Your task to perform on an android device: Show the shopping cart on newegg.com. Add "razer nari" to the cart on newegg.com Image 0: 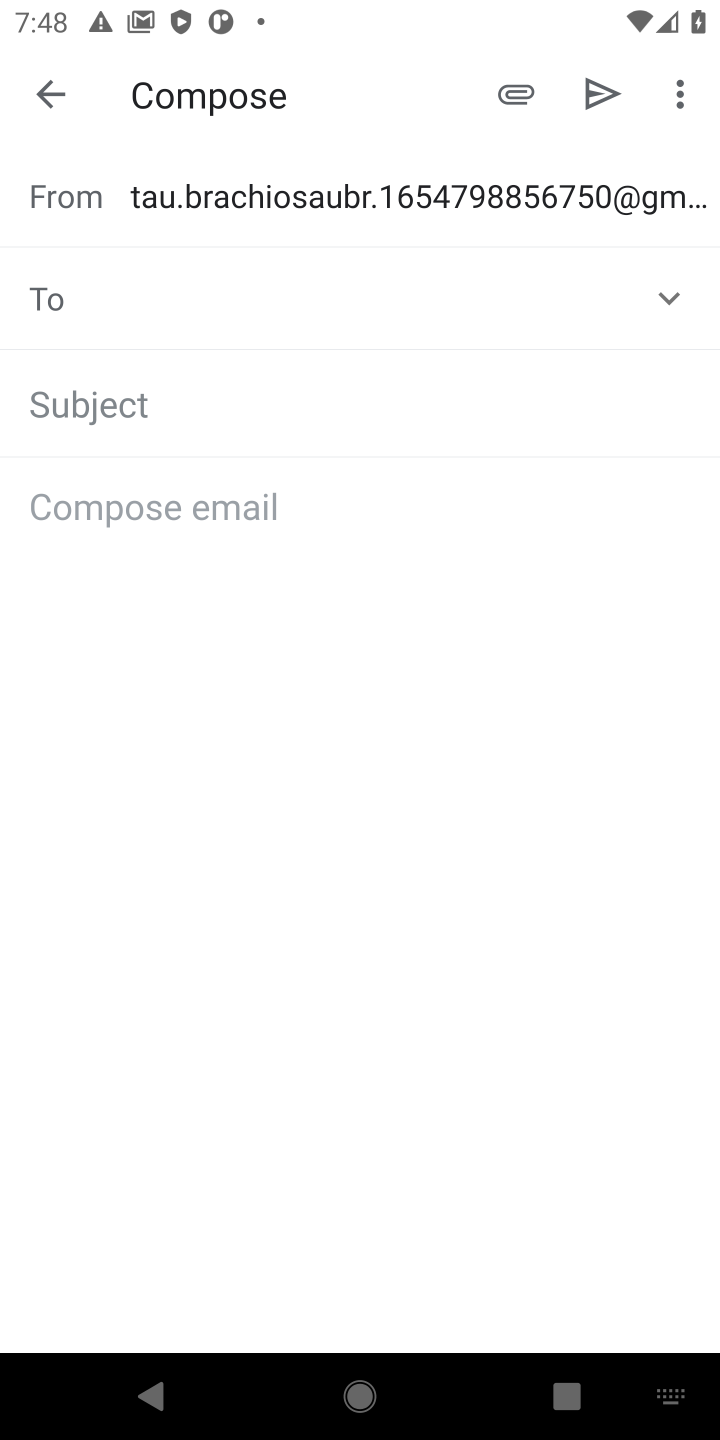
Step 0: press home button
Your task to perform on an android device: Show the shopping cart on newegg.com. Add "razer nari" to the cart on newegg.com Image 1: 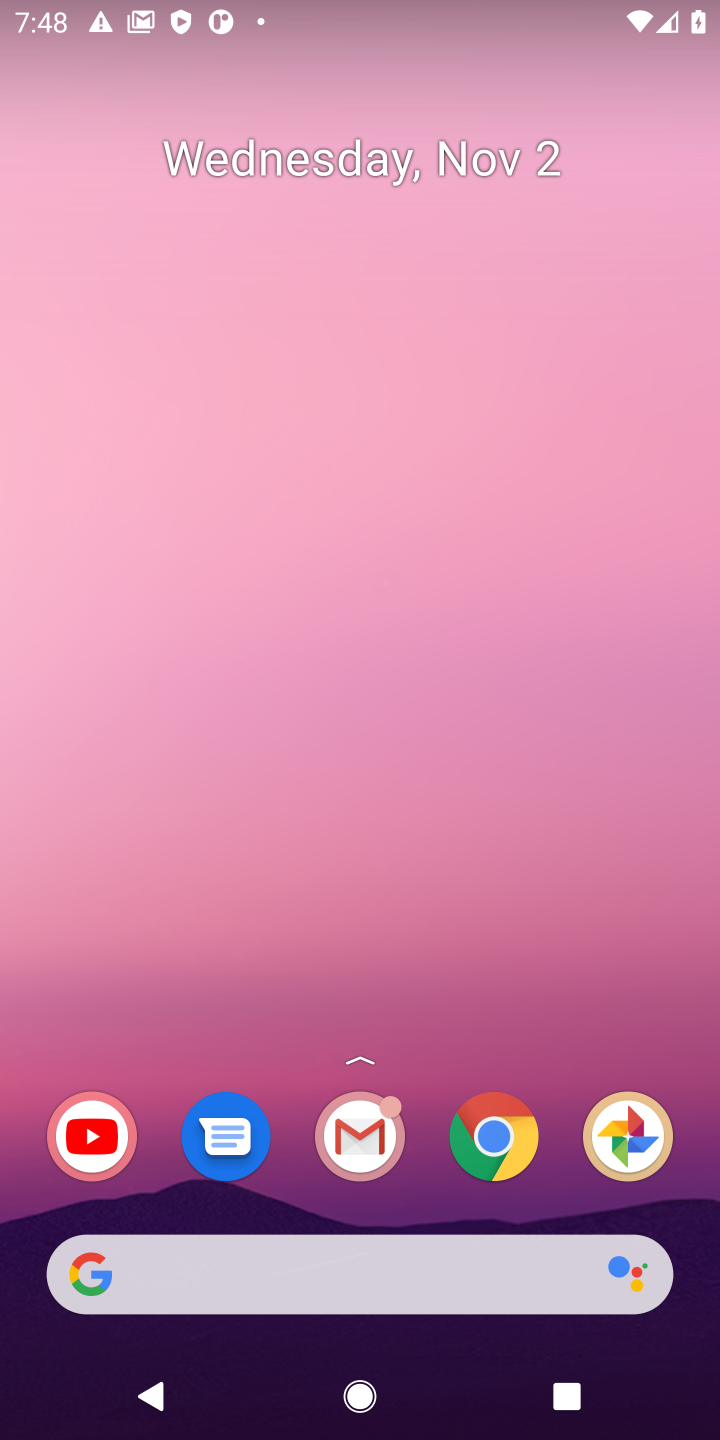
Step 1: drag from (390, 1139) to (335, 624)
Your task to perform on an android device: Show the shopping cart on newegg.com. Add "razer nari" to the cart on newegg.com Image 2: 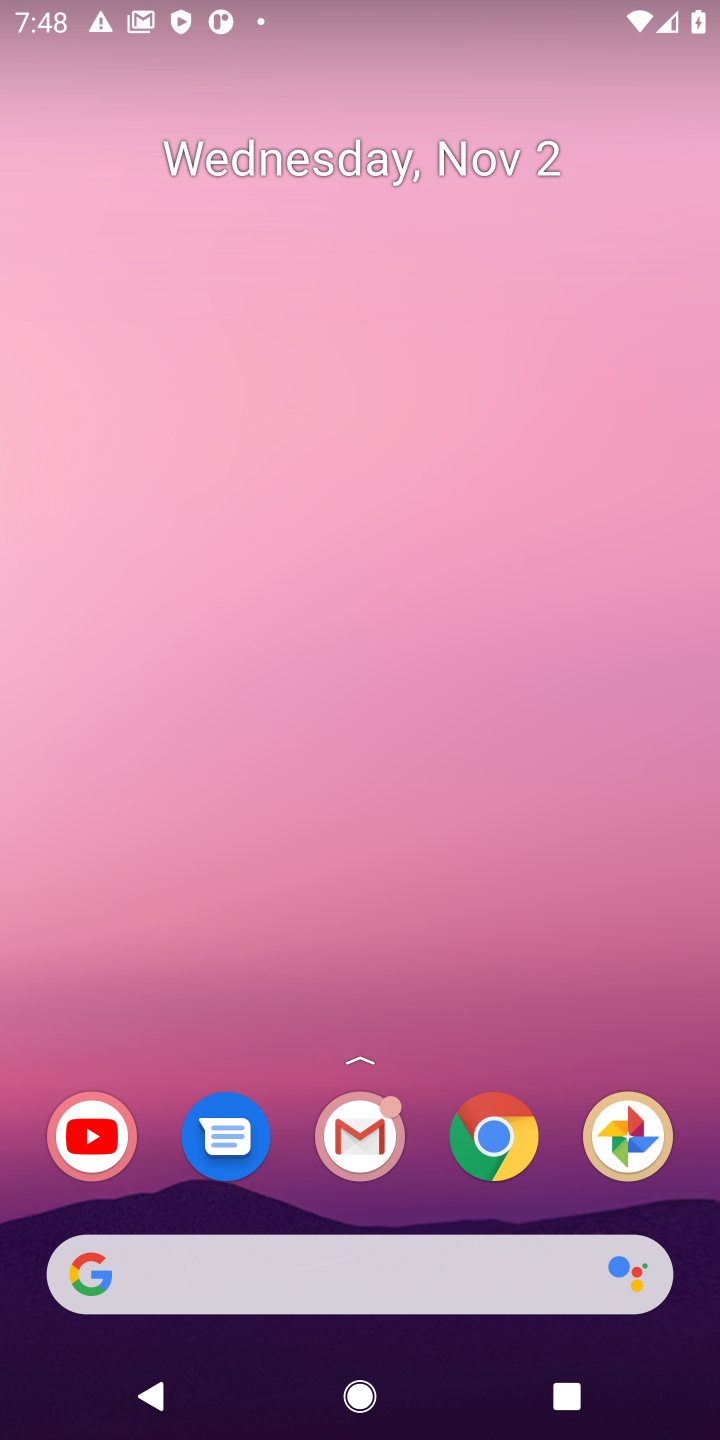
Step 2: drag from (296, 1196) to (298, 226)
Your task to perform on an android device: Show the shopping cart on newegg.com. Add "razer nari" to the cart on newegg.com Image 3: 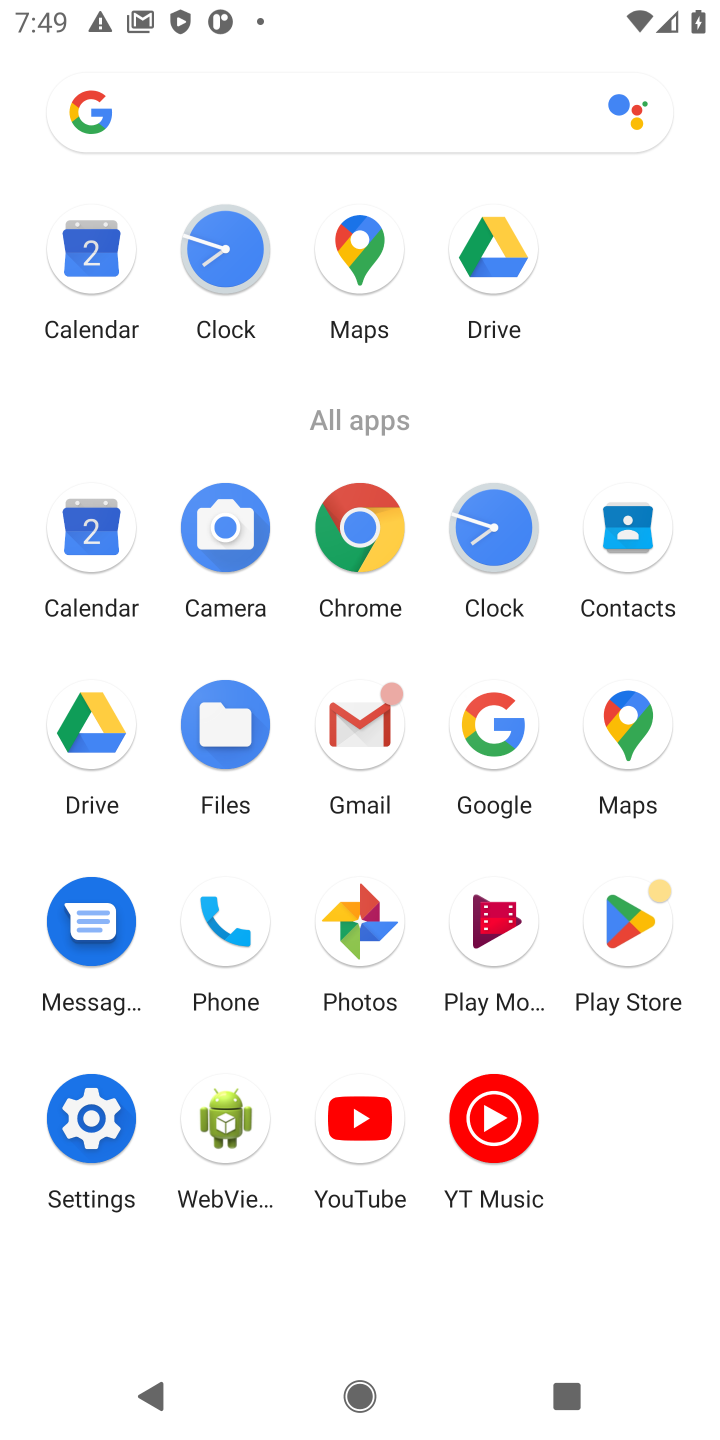
Step 3: click (476, 717)
Your task to perform on an android device: Show the shopping cart on newegg.com. Add "razer nari" to the cart on newegg.com Image 4: 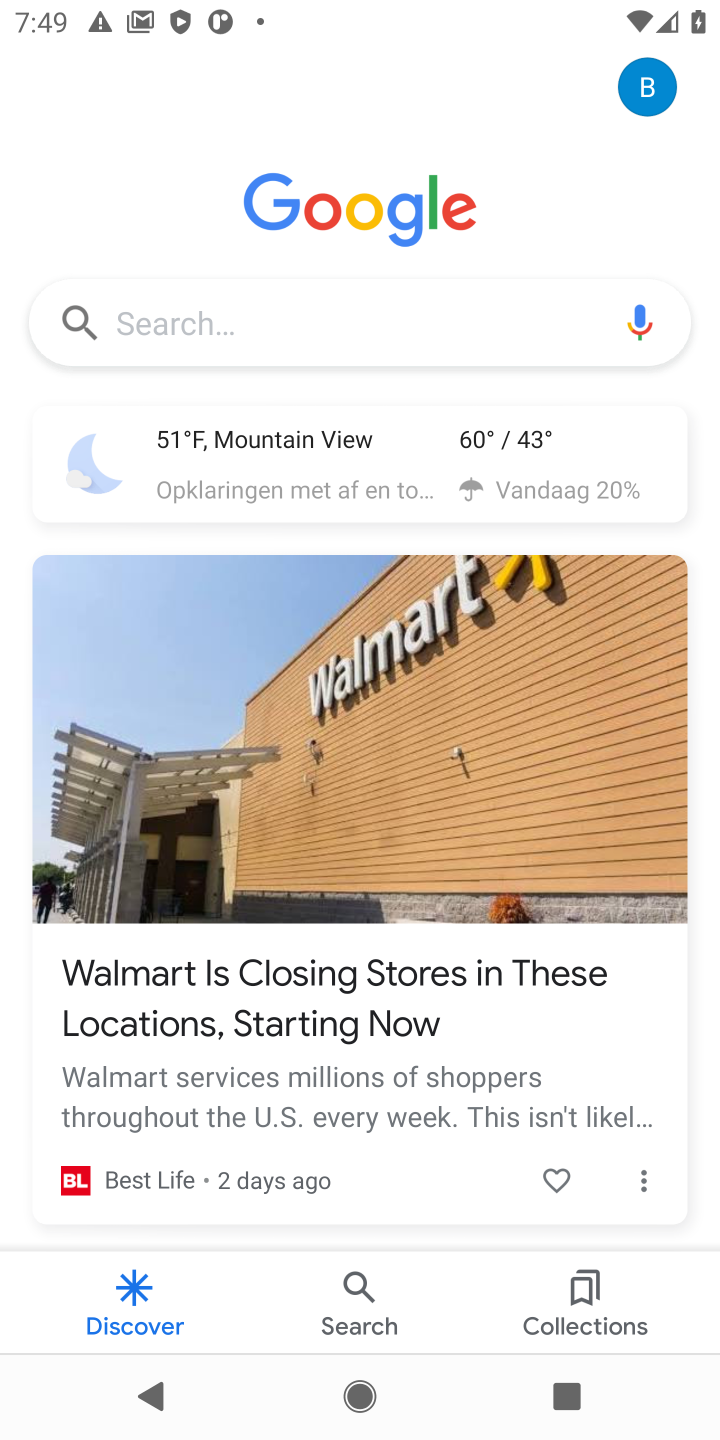
Step 4: click (231, 317)
Your task to perform on an android device: Show the shopping cart on newegg.com. Add "razer nari" to the cart on newegg.com Image 5: 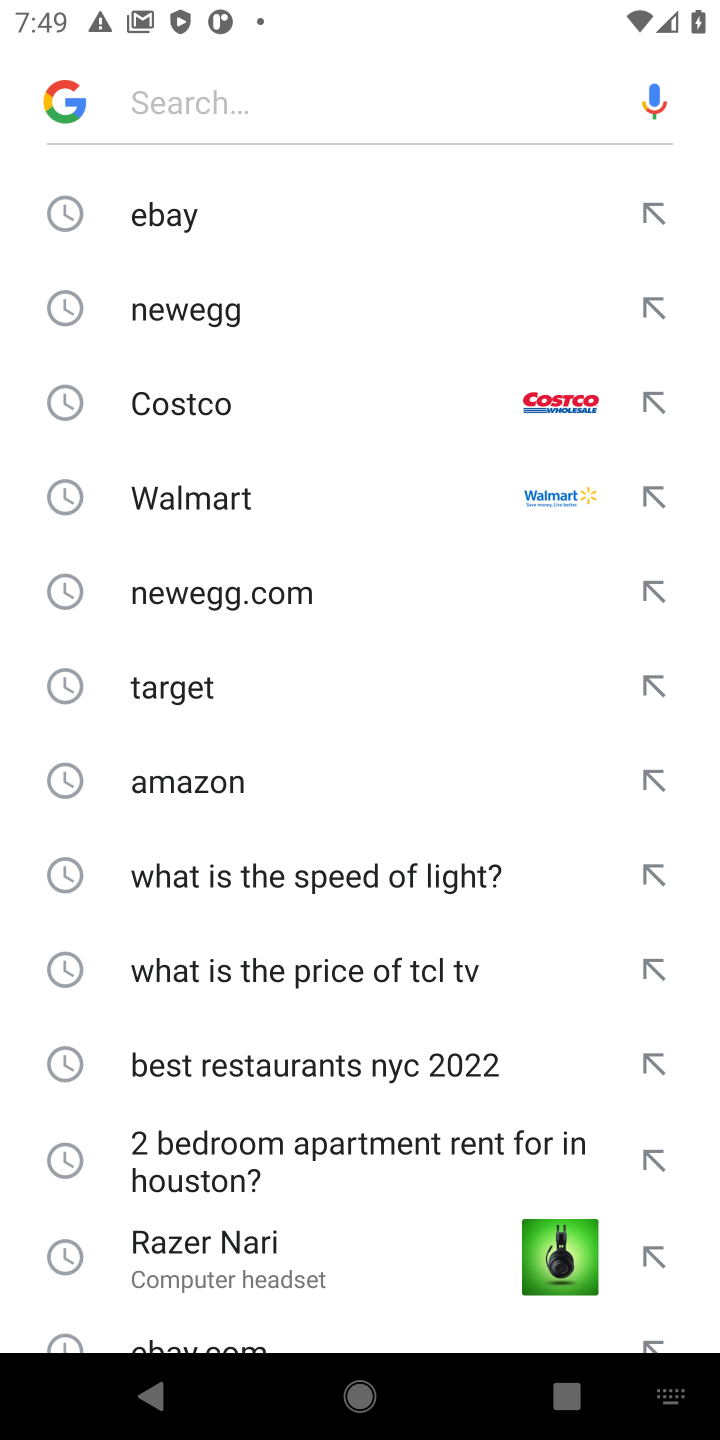
Step 5: click (215, 328)
Your task to perform on an android device: Show the shopping cart on newegg.com. Add "razer nari" to the cart on newegg.com Image 6: 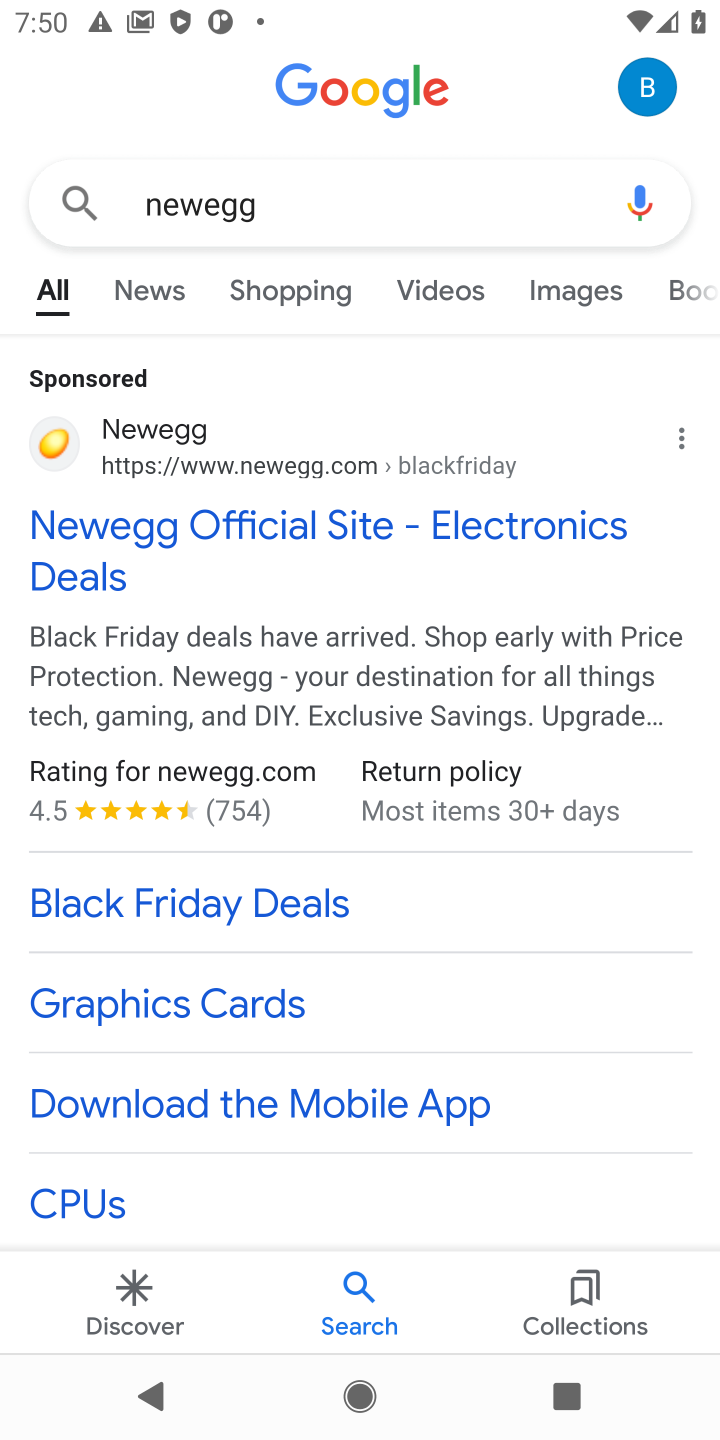
Step 6: click (84, 524)
Your task to perform on an android device: Show the shopping cart on newegg.com. Add "razer nari" to the cart on newegg.com Image 7: 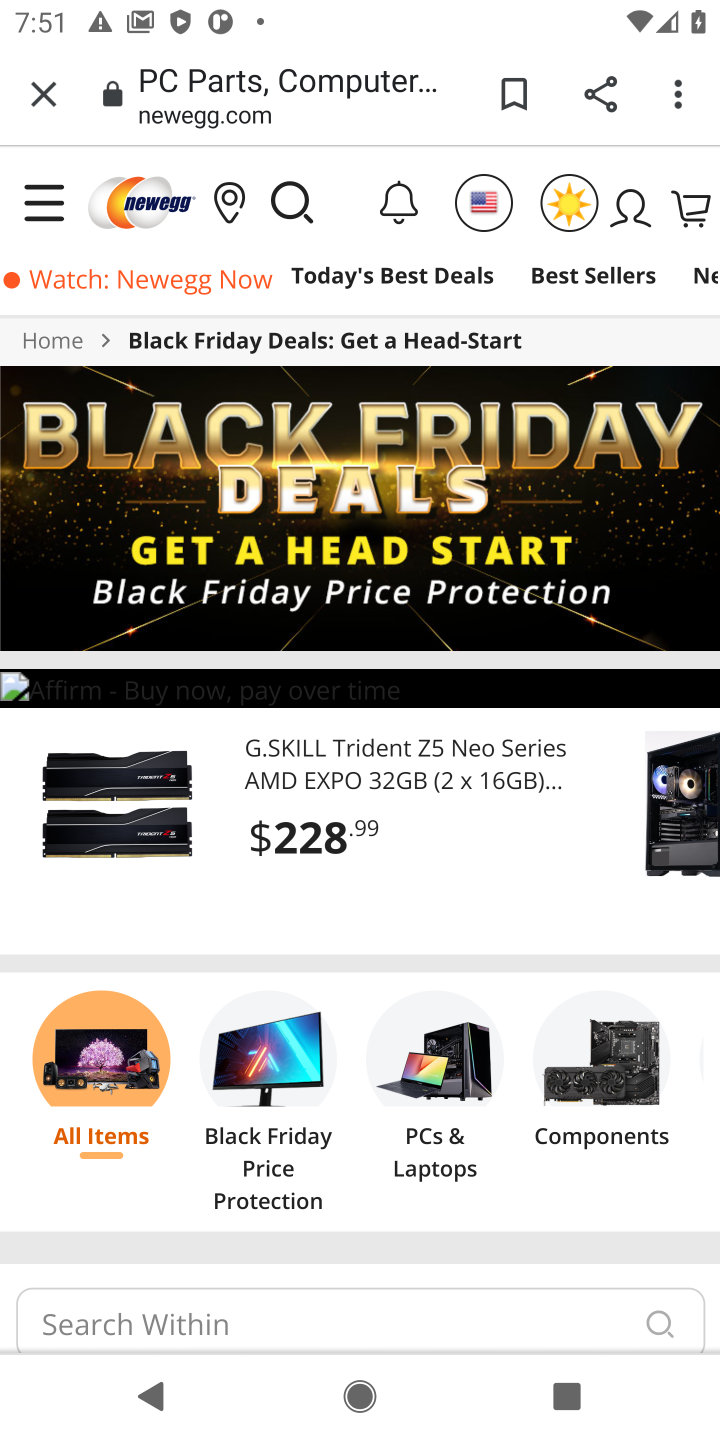
Step 7: click (288, 204)
Your task to perform on an android device: Show the shopping cart on newegg.com. Add "razer nari" to the cart on newegg.com Image 8: 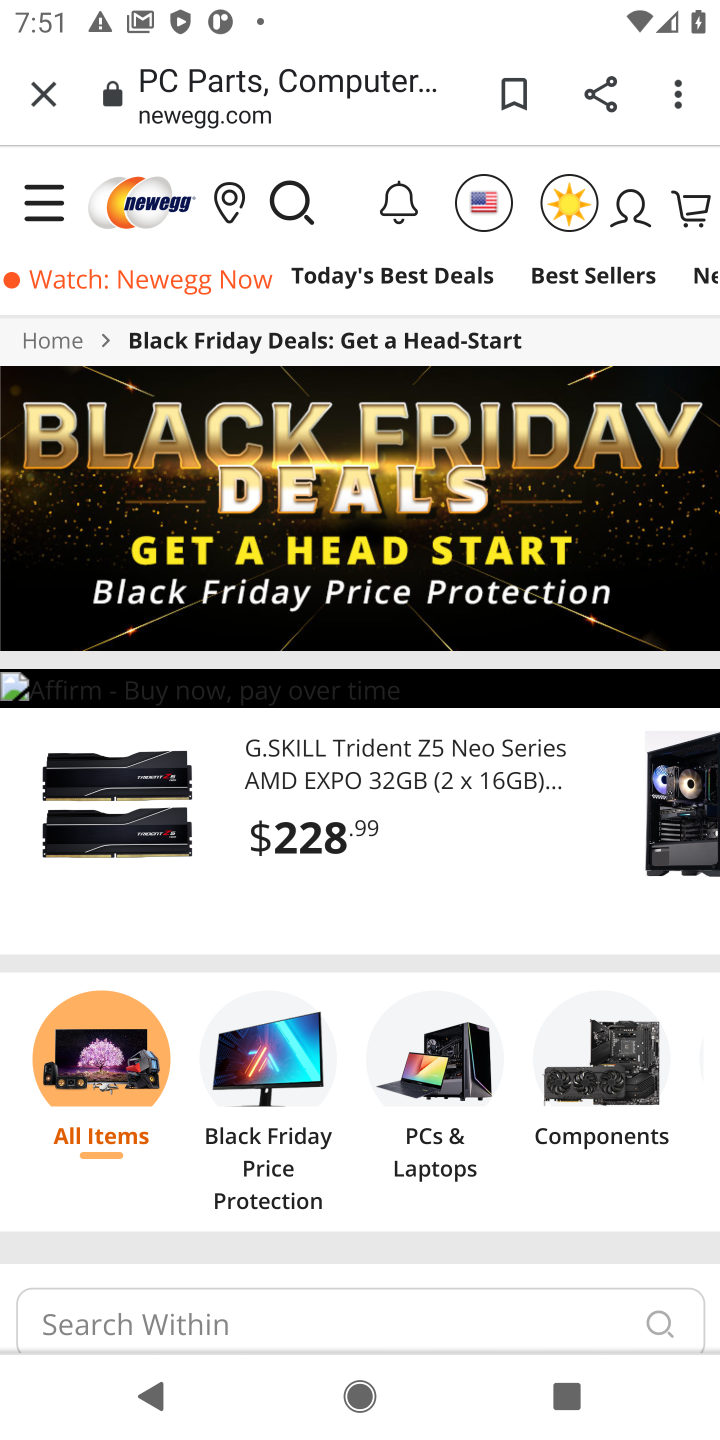
Step 8: click (292, 201)
Your task to perform on an android device: Show the shopping cart on newegg.com. Add "razer nari" to the cart on newegg.com Image 9: 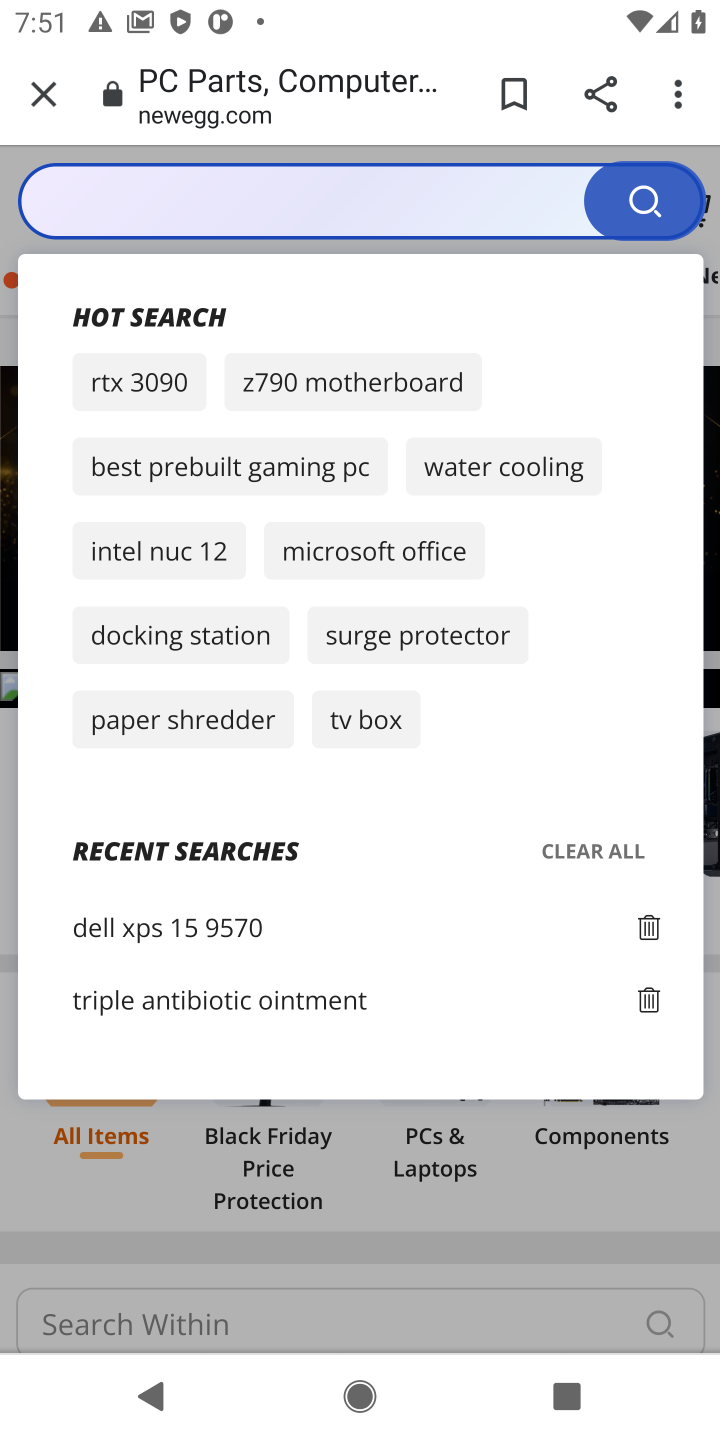
Step 9: type "razer nari "
Your task to perform on an android device: Show the shopping cart on newegg.com. Add "razer nari" to the cart on newegg.com Image 10: 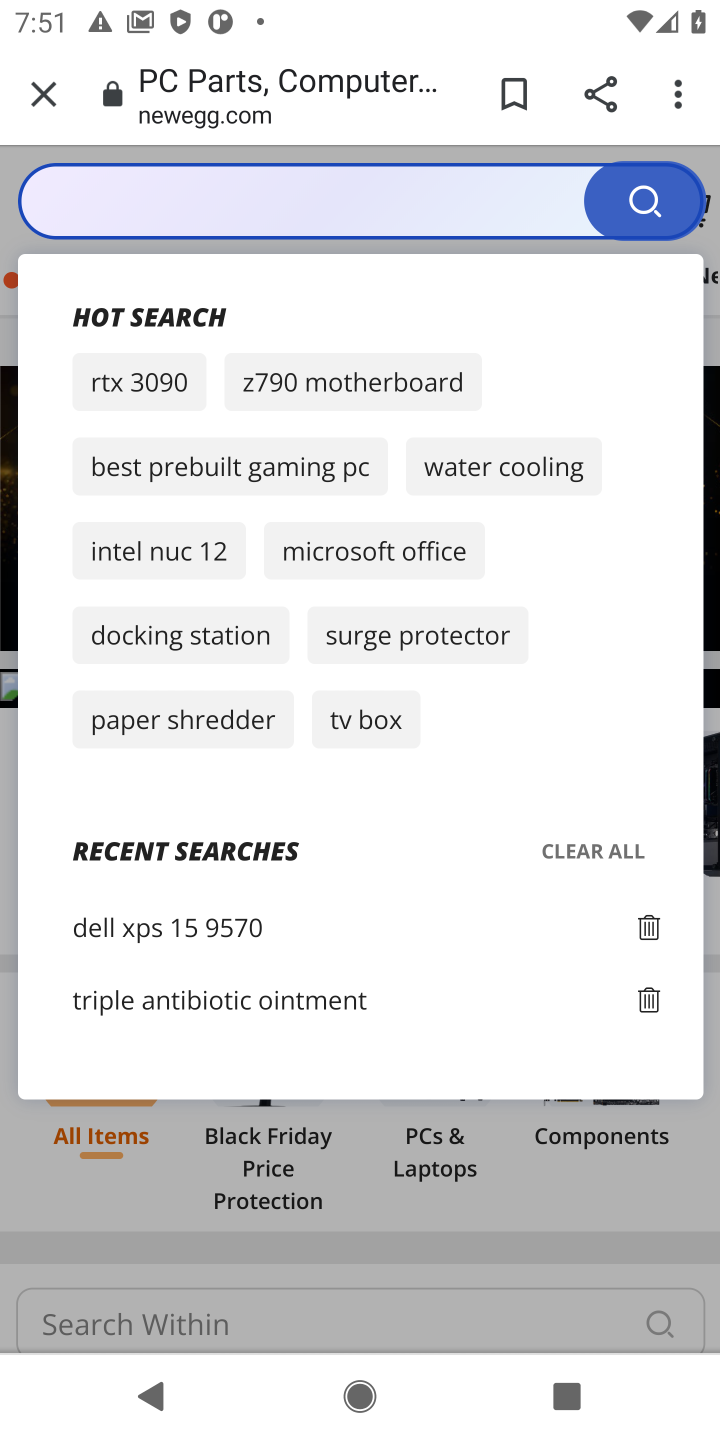
Step 10: click (406, 201)
Your task to perform on an android device: Show the shopping cart on newegg.com. Add "razer nari" to the cart on newegg.com Image 11: 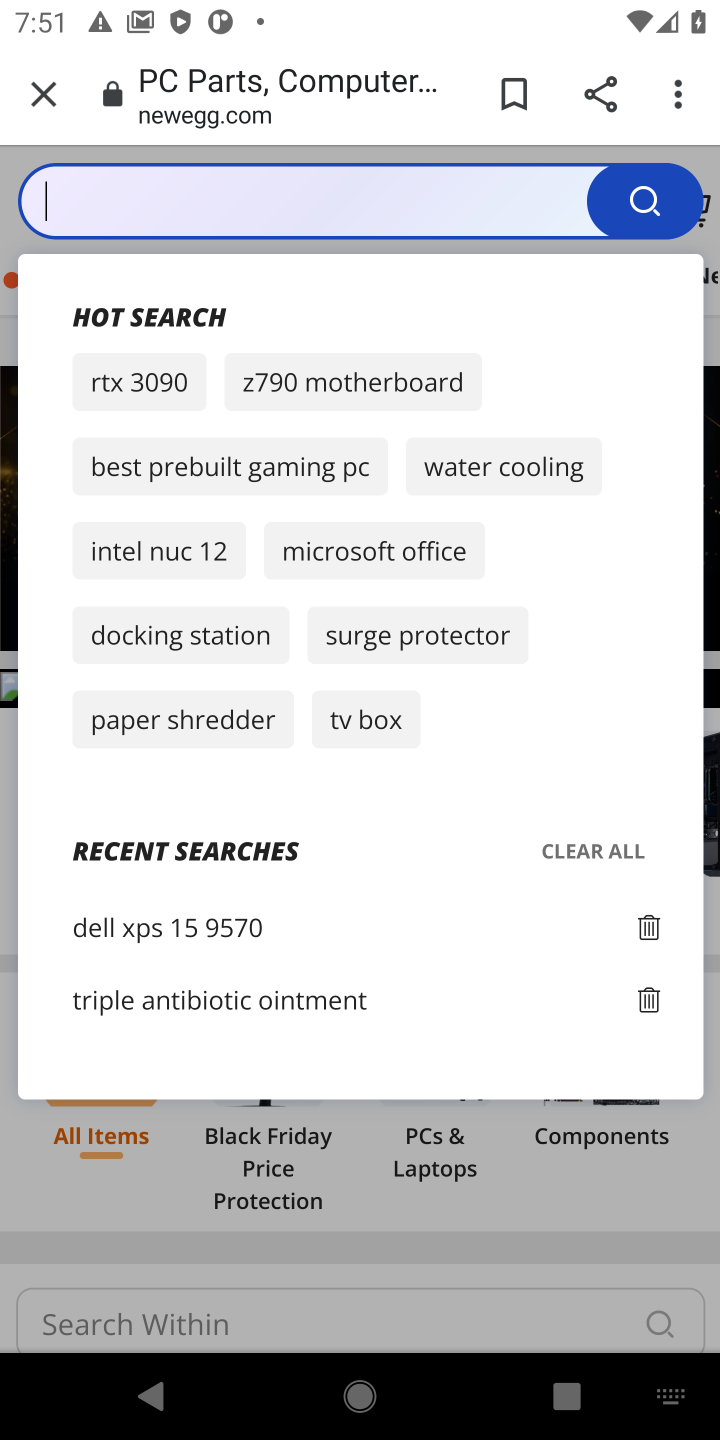
Step 11: type "razer nari" "
Your task to perform on an android device: Show the shopping cart on newegg.com. Add "razer nari" to the cart on newegg.com Image 12: 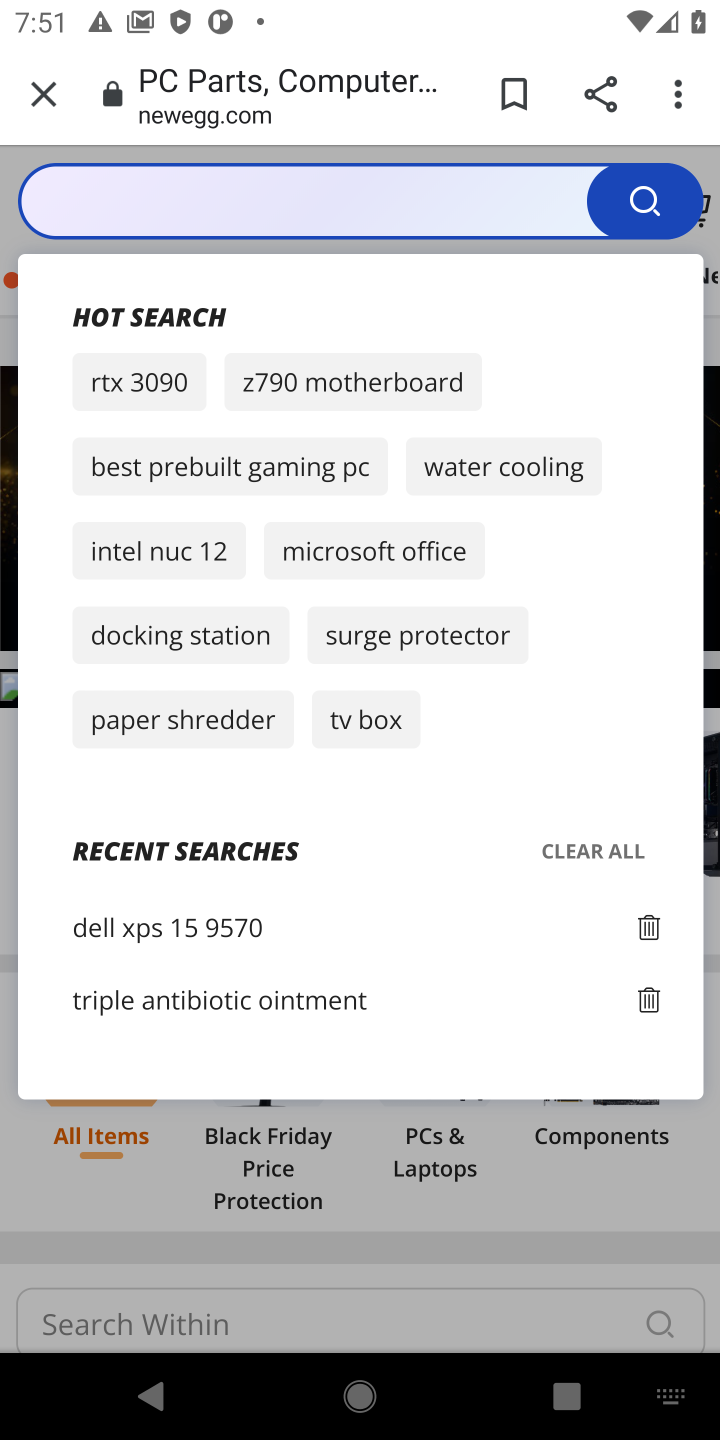
Step 12: click (656, 203)
Your task to perform on an android device: Show the shopping cart on newegg.com. Add "razer nari" to the cart on newegg.com Image 13: 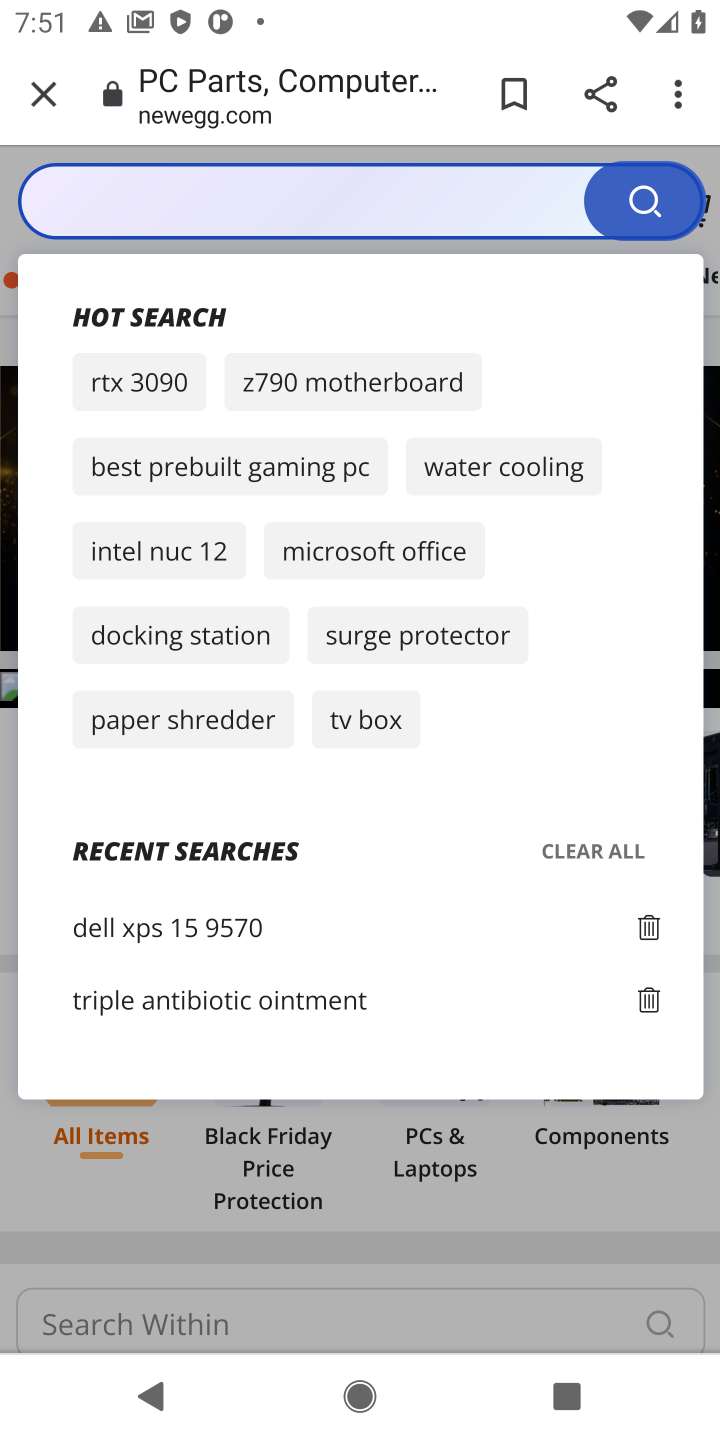
Step 13: click (252, 183)
Your task to perform on an android device: Show the shopping cart on newegg.com. Add "razer nari" to the cart on newegg.com Image 14: 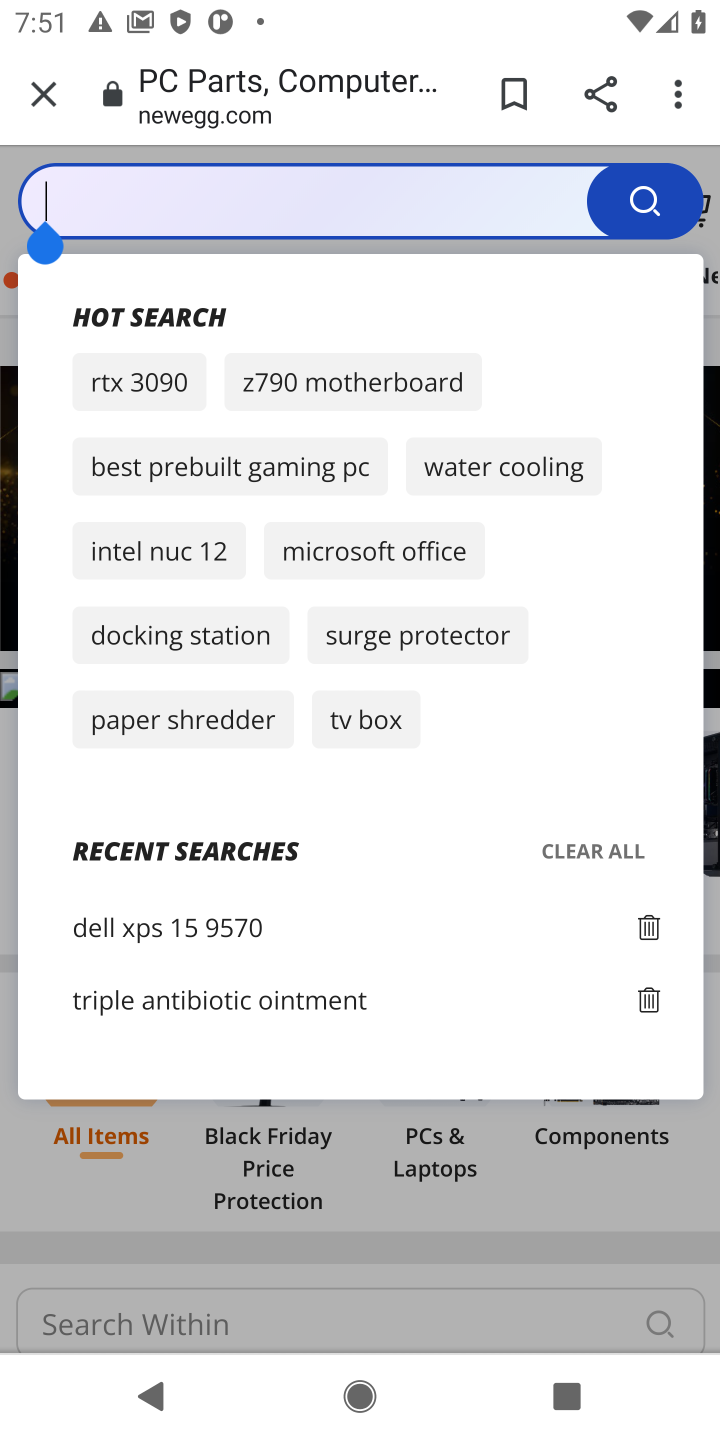
Step 14: click (252, 183)
Your task to perform on an android device: Show the shopping cart on newegg.com. Add "razer nari" to the cart on newegg.com Image 15: 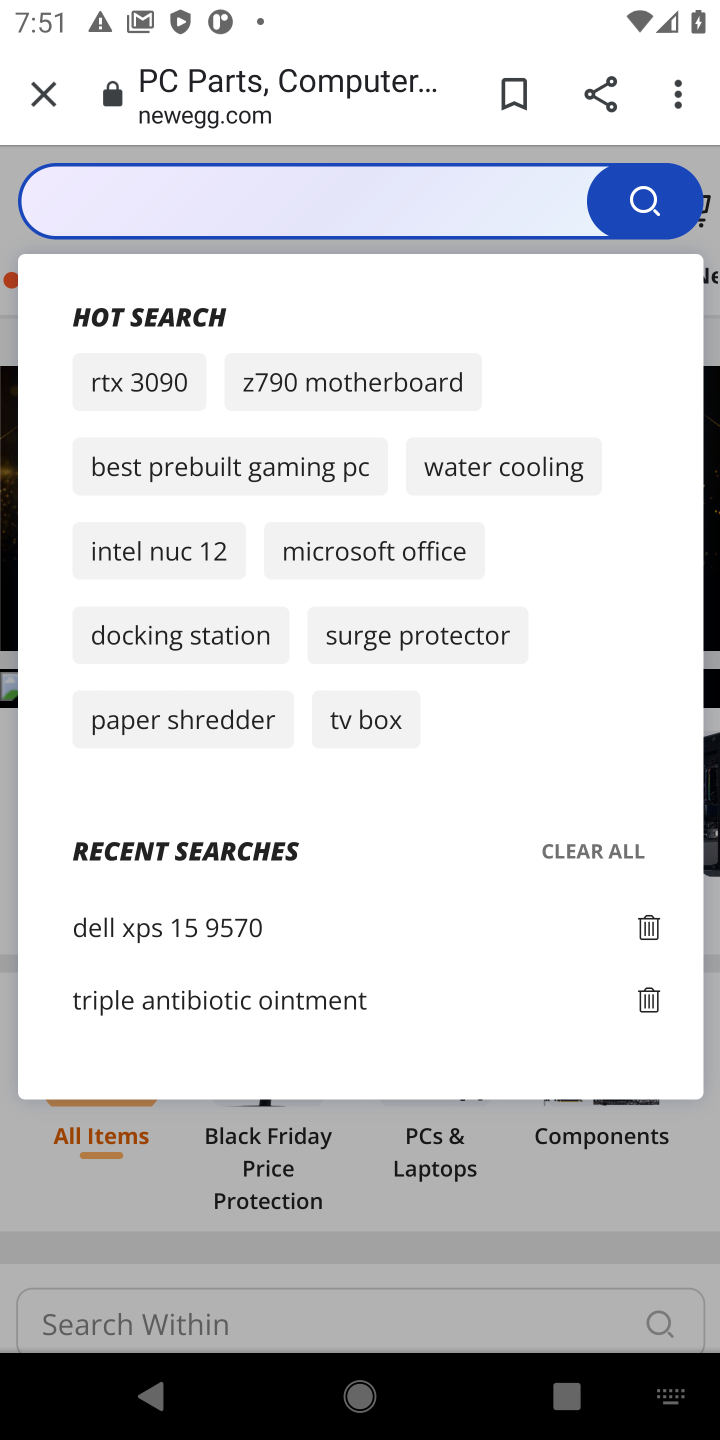
Step 15: type "razer nari" "
Your task to perform on an android device: Show the shopping cart on newegg.com. Add "razer nari" to the cart on newegg.com Image 16: 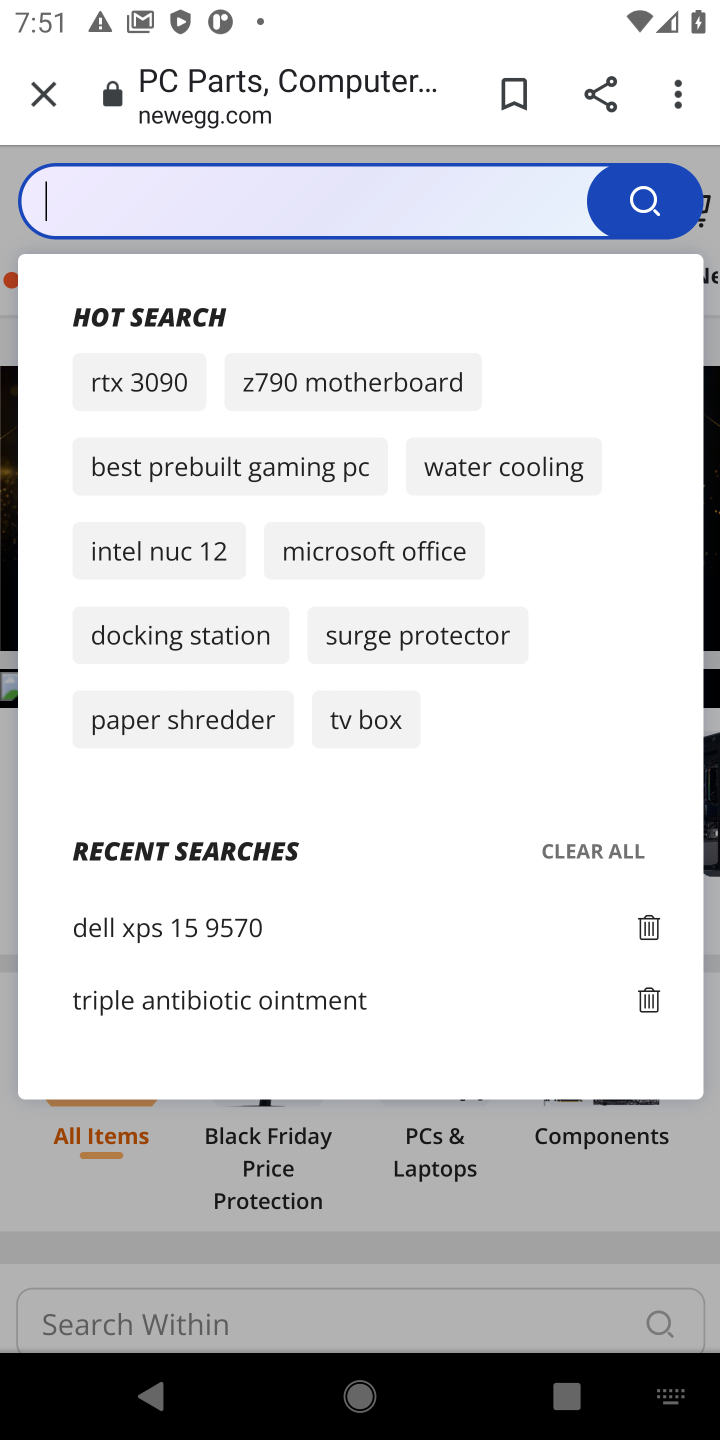
Step 16: drag from (325, 872) to (343, 159)
Your task to perform on an android device: Show the shopping cart on newegg.com. Add "razer nari" to the cart on newegg.com Image 17: 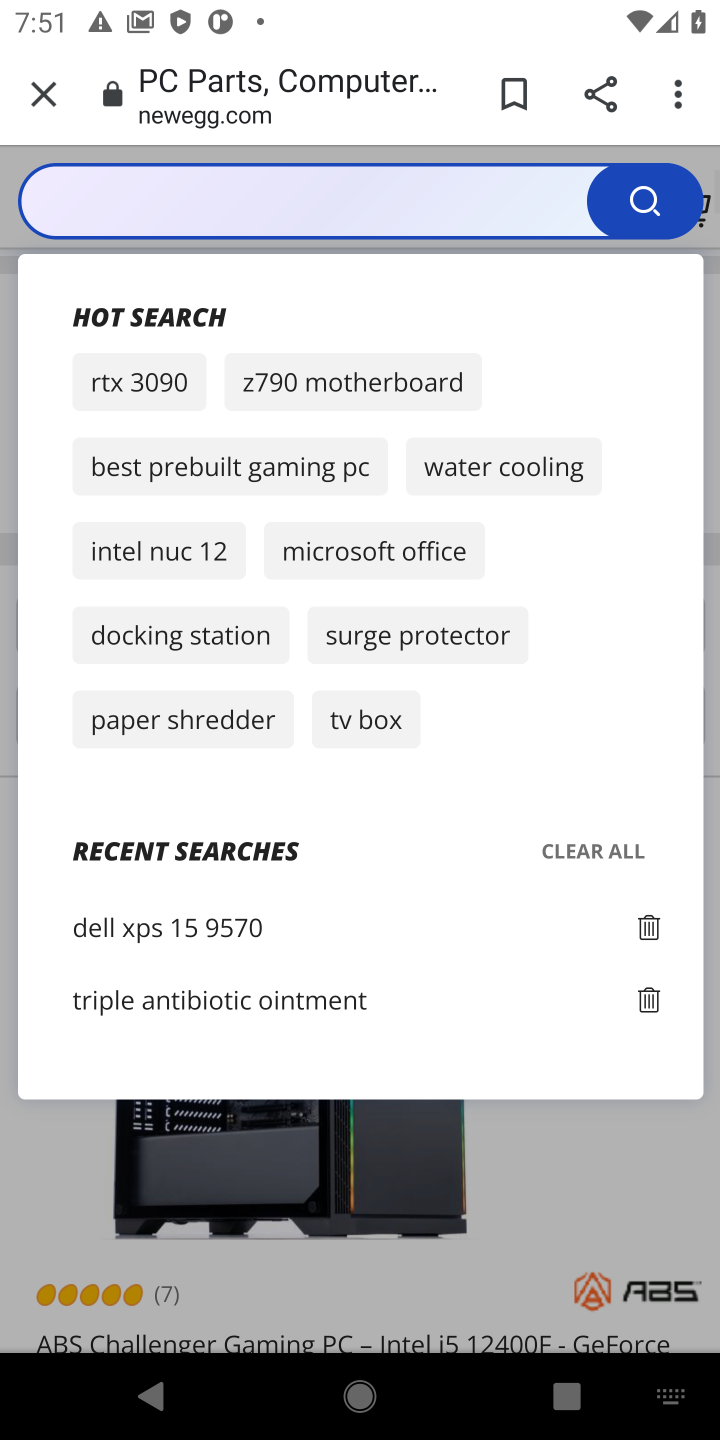
Step 17: click (334, 201)
Your task to perform on an android device: Show the shopping cart on newegg.com. Add "razer nari" to the cart on newegg.com Image 18: 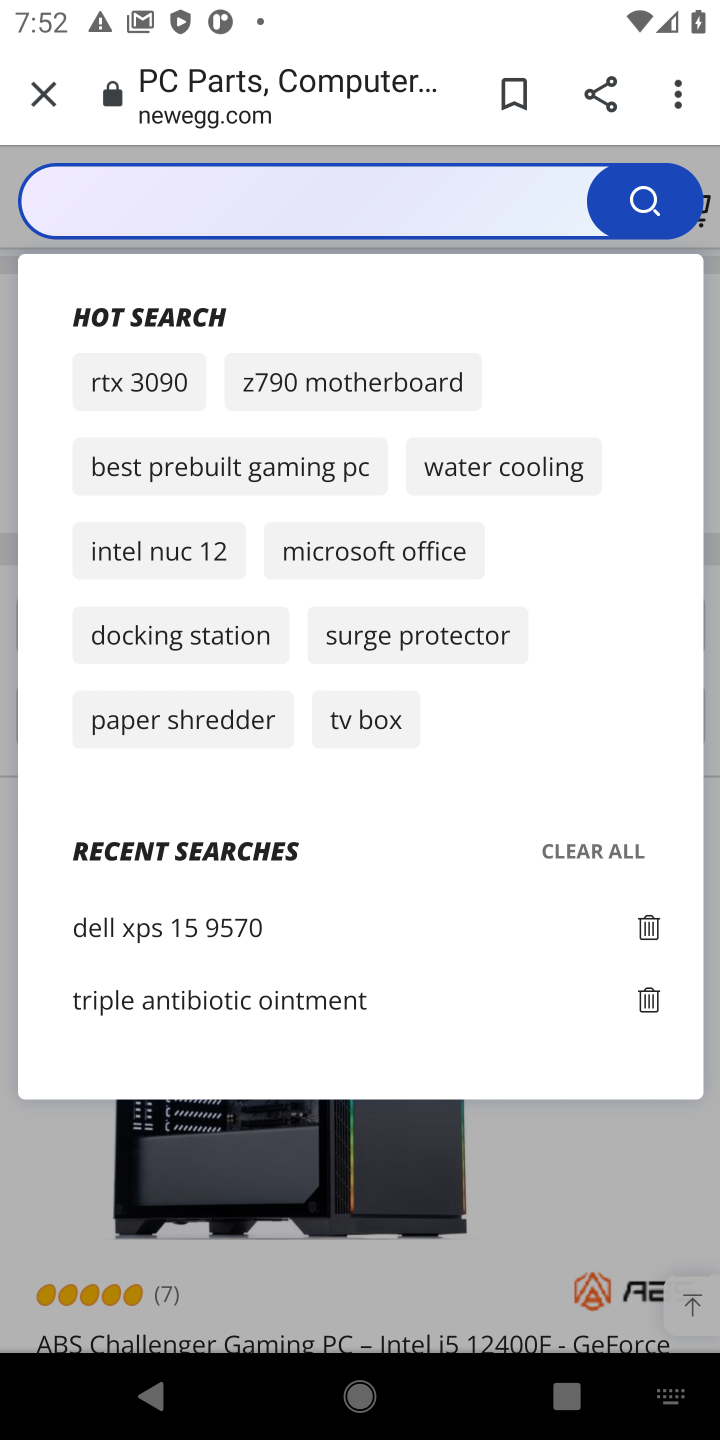
Step 18: click (316, 198)
Your task to perform on an android device: Show the shopping cart on newegg.com. Add "razer nari" to the cart on newegg.com Image 19: 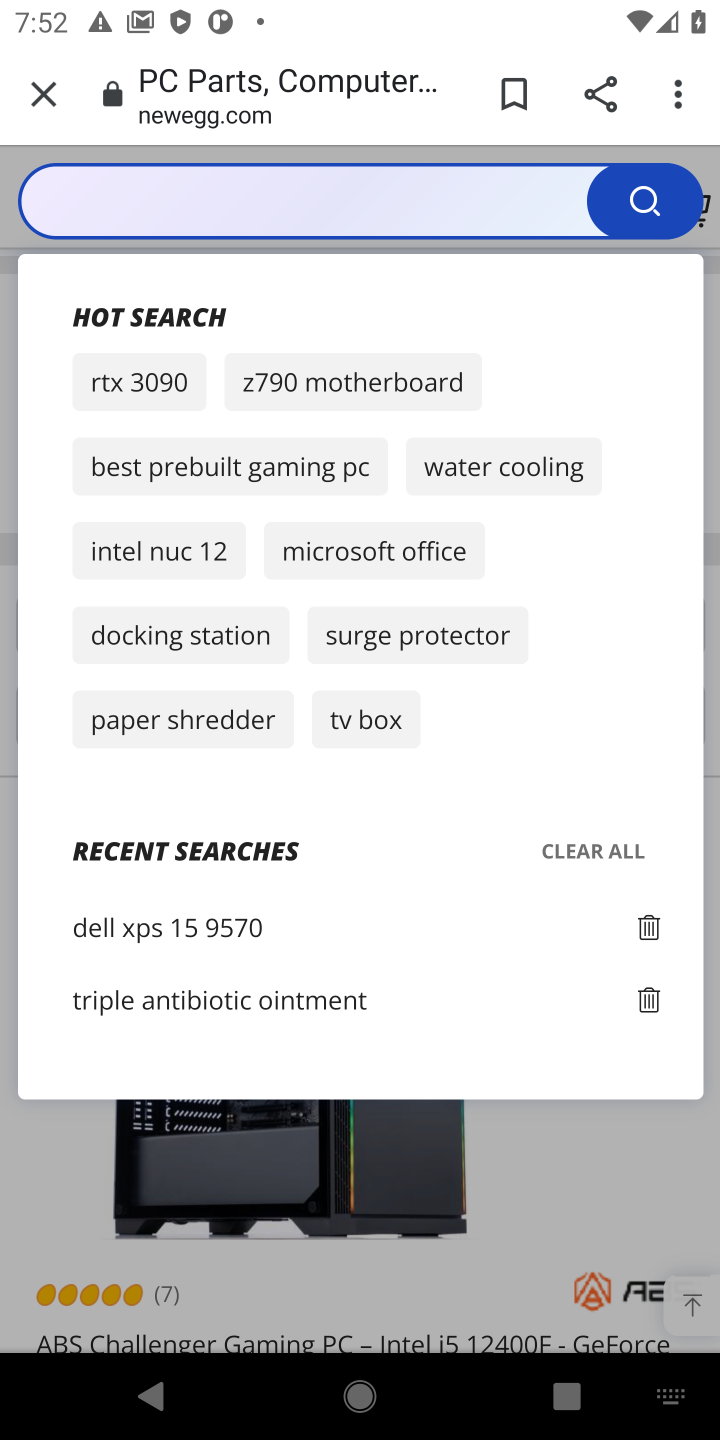
Step 19: type "razer nari "
Your task to perform on an android device: Show the shopping cart on newegg.com. Add "razer nari" to the cart on newegg.com Image 20: 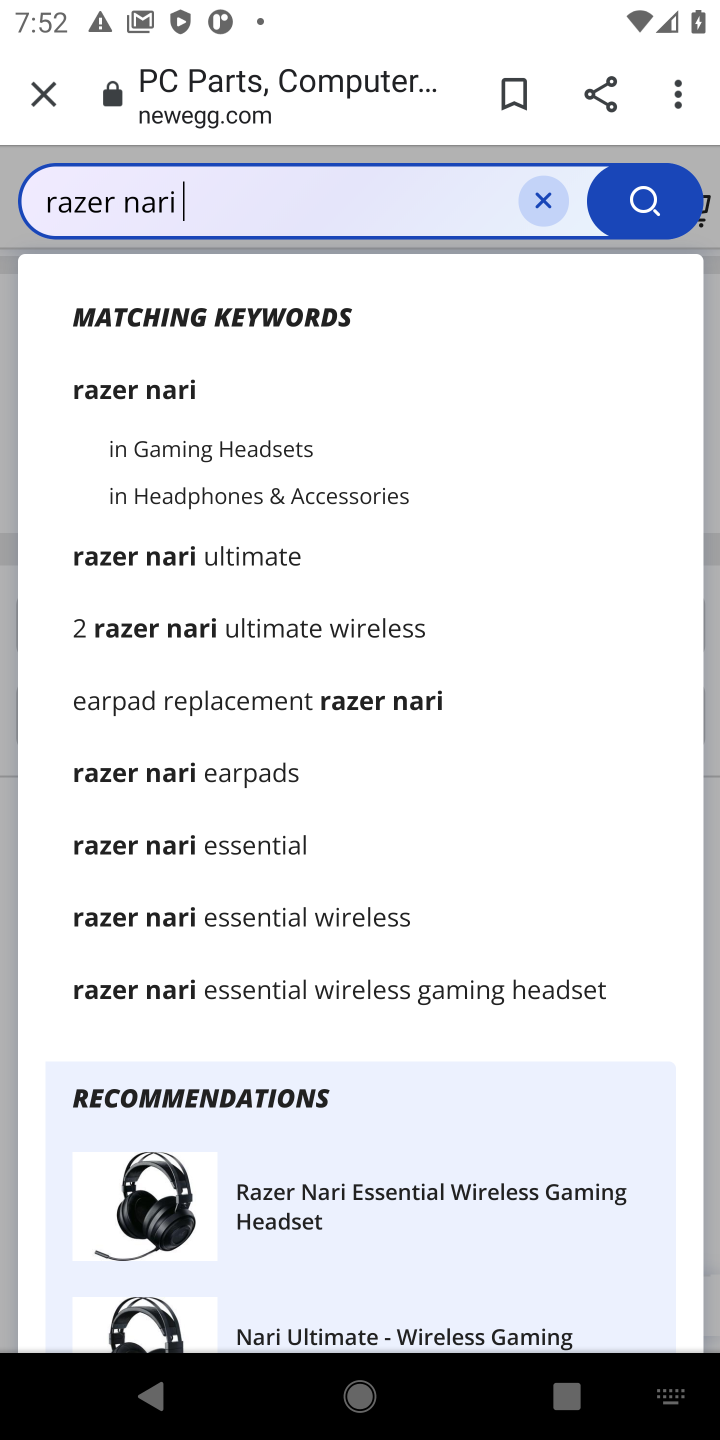
Step 20: click (160, 370)
Your task to perform on an android device: Show the shopping cart on newegg.com. Add "razer nari" to the cart on newegg.com Image 21: 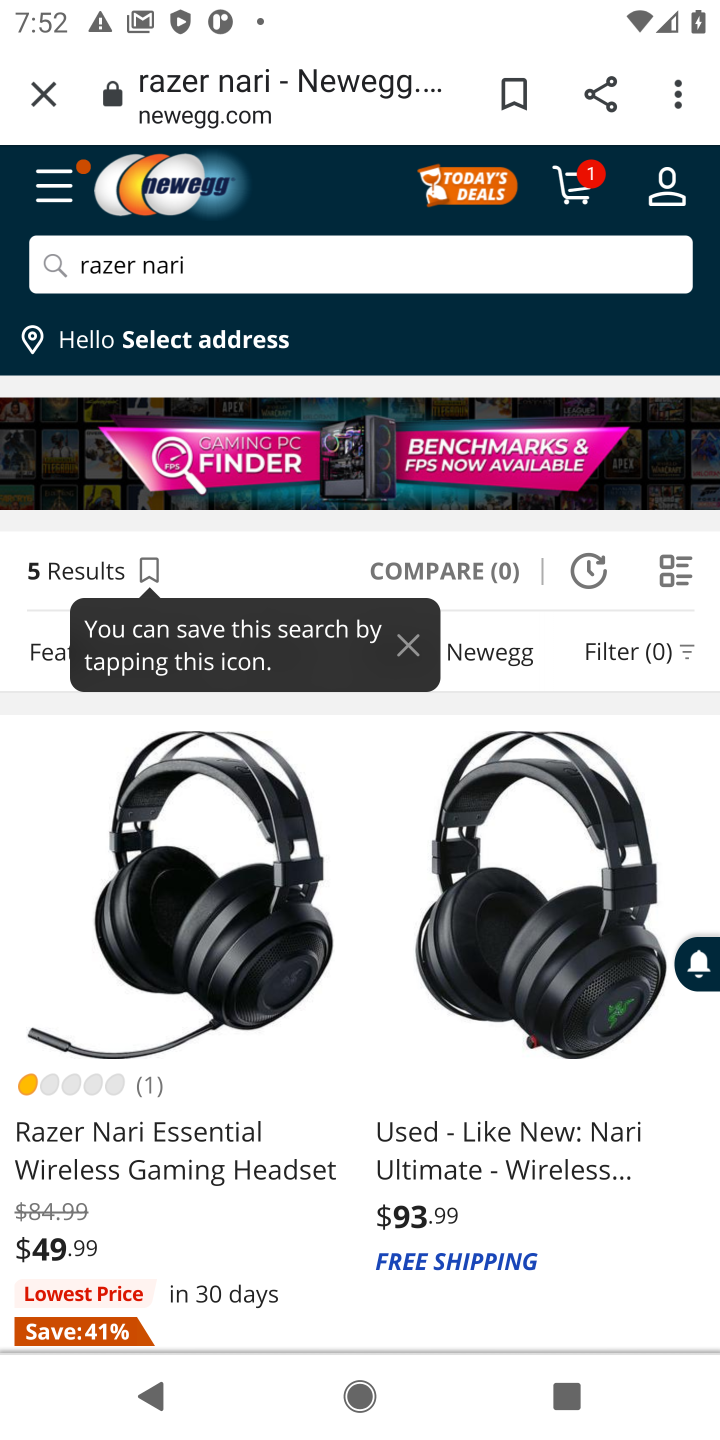
Step 21: click (218, 861)
Your task to perform on an android device: Show the shopping cart on newegg.com. Add "razer nari" to the cart on newegg.com Image 22: 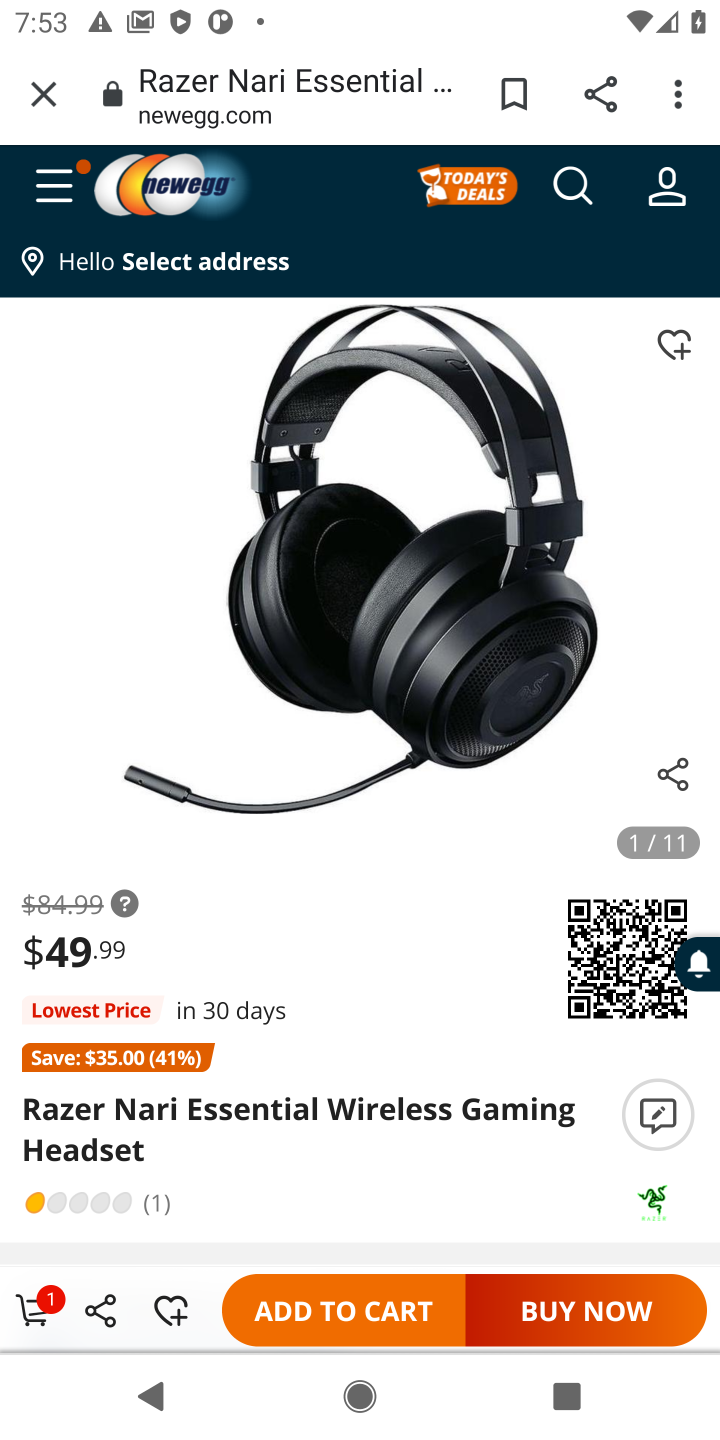
Step 22: click (297, 1292)
Your task to perform on an android device: Show the shopping cart on newegg.com. Add "razer nari" to the cart on newegg.com Image 23: 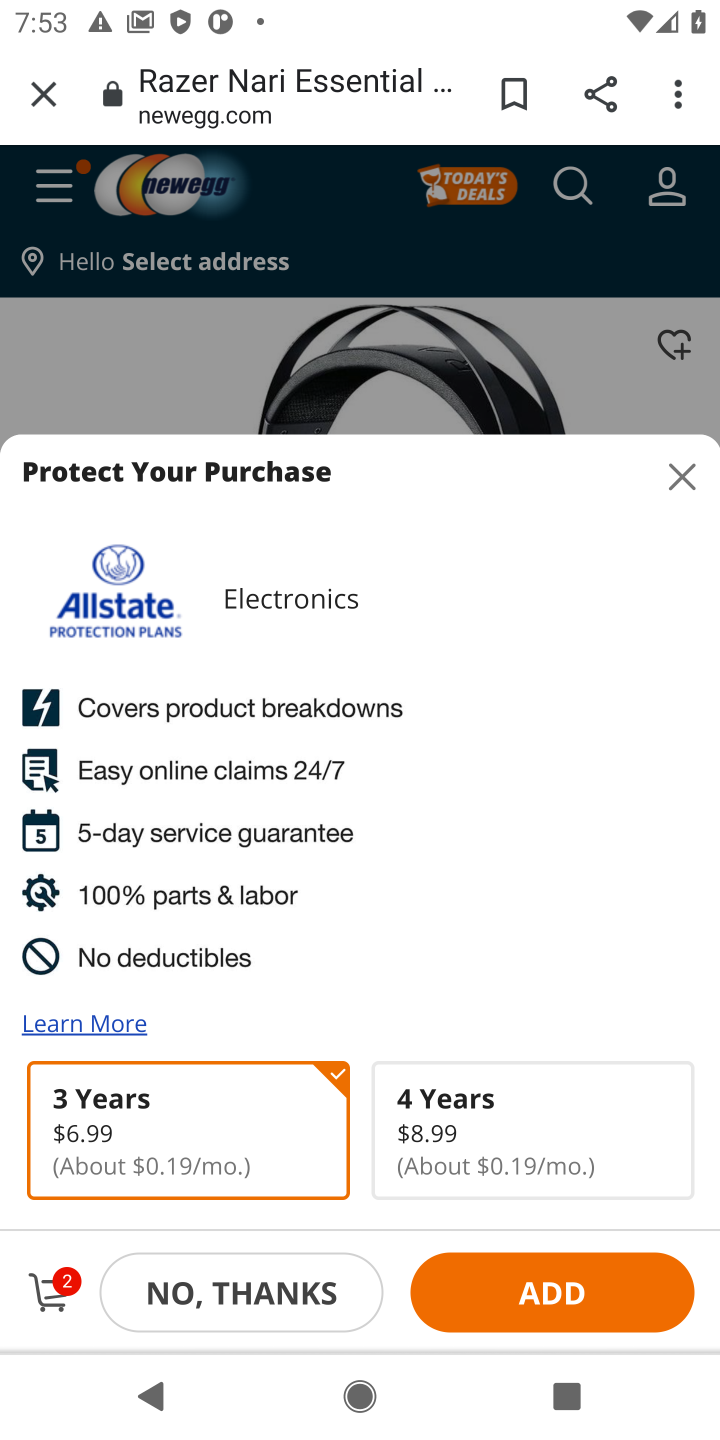
Step 23: task complete